Your task to perform on an android device: delete location history Image 0: 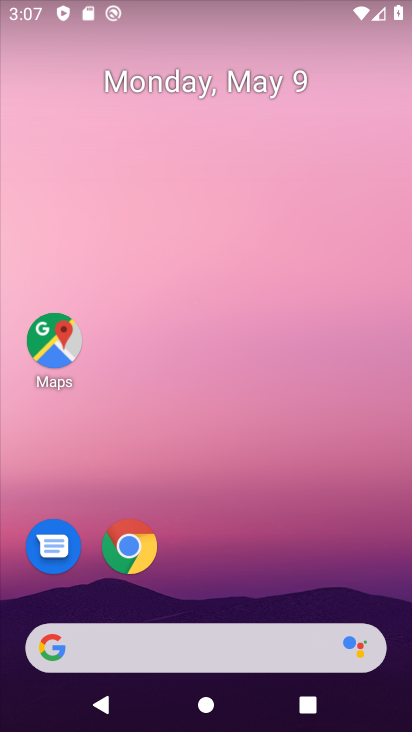
Step 0: drag from (313, 556) to (214, 126)
Your task to perform on an android device: delete location history Image 1: 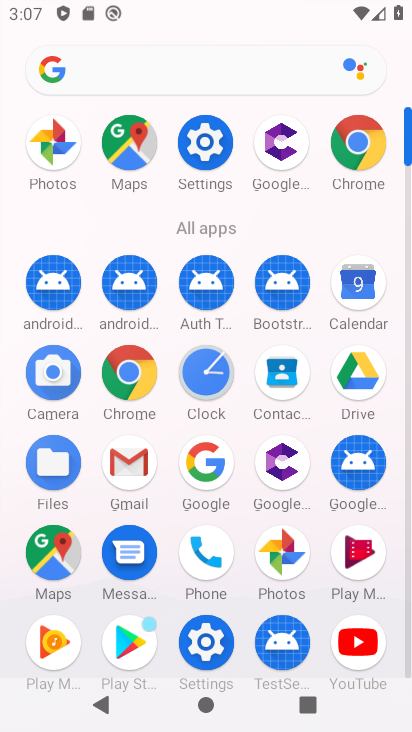
Step 1: click (127, 178)
Your task to perform on an android device: delete location history Image 2: 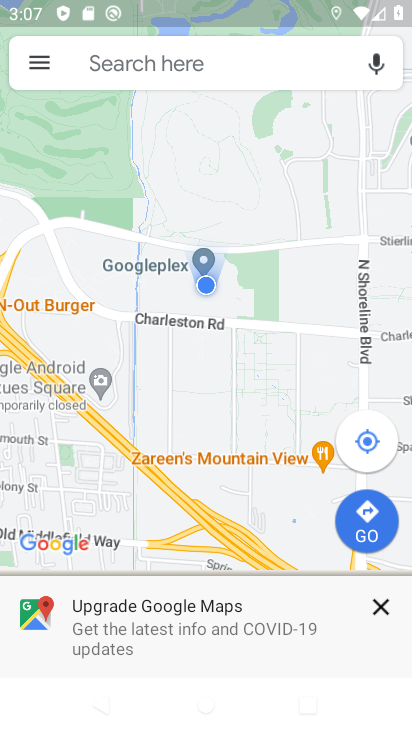
Step 2: click (23, 64)
Your task to perform on an android device: delete location history Image 3: 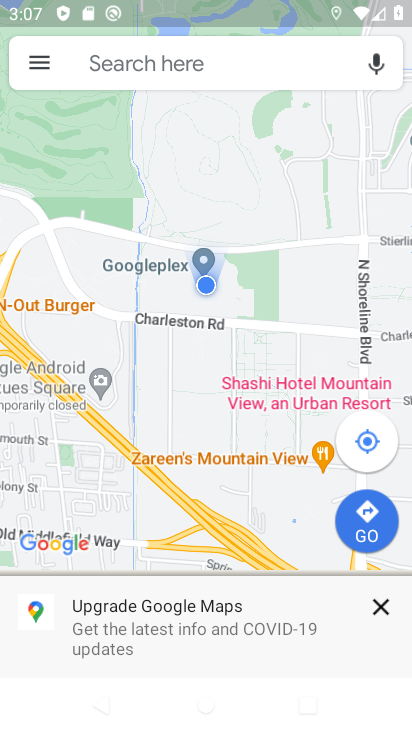
Step 3: click (43, 78)
Your task to perform on an android device: delete location history Image 4: 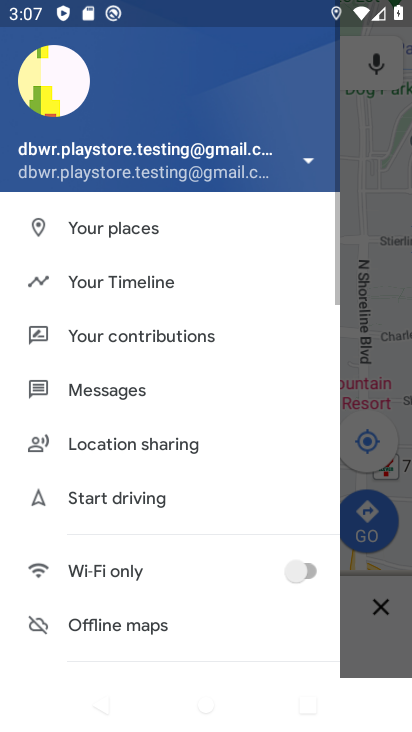
Step 4: click (151, 289)
Your task to perform on an android device: delete location history Image 5: 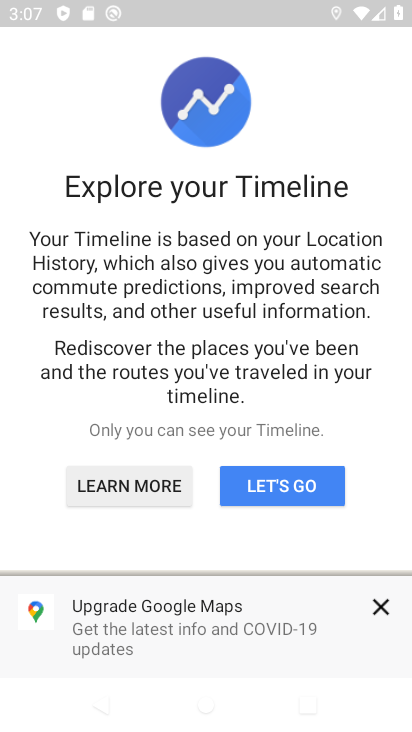
Step 5: click (294, 494)
Your task to perform on an android device: delete location history Image 6: 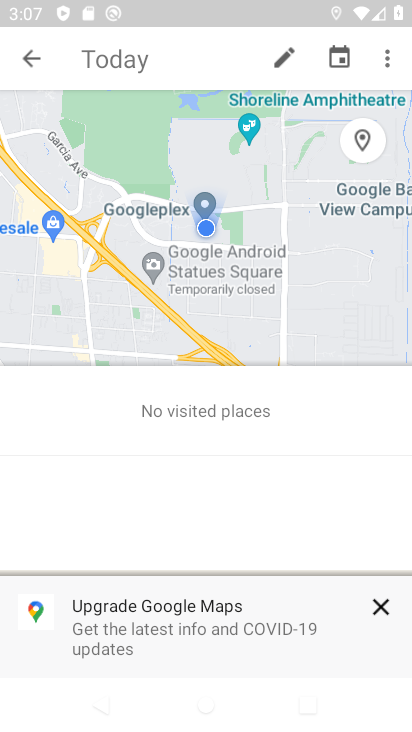
Step 6: click (379, 90)
Your task to perform on an android device: delete location history Image 7: 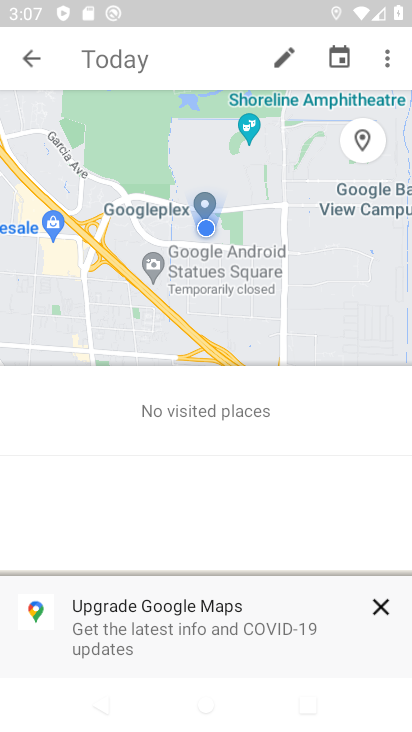
Step 7: click (385, 73)
Your task to perform on an android device: delete location history Image 8: 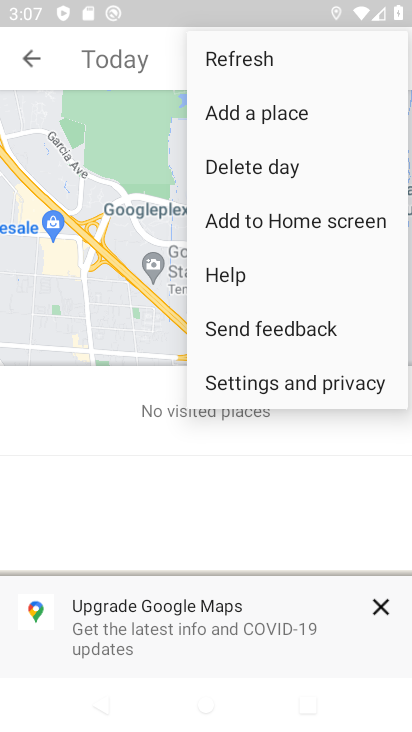
Step 8: click (312, 386)
Your task to perform on an android device: delete location history Image 9: 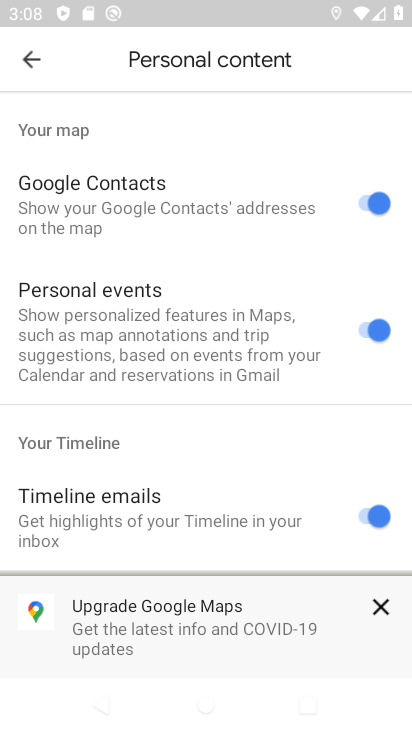
Step 9: drag from (225, 520) to (159, 220)
Your task to perform on an android device: delete location history Image 10: 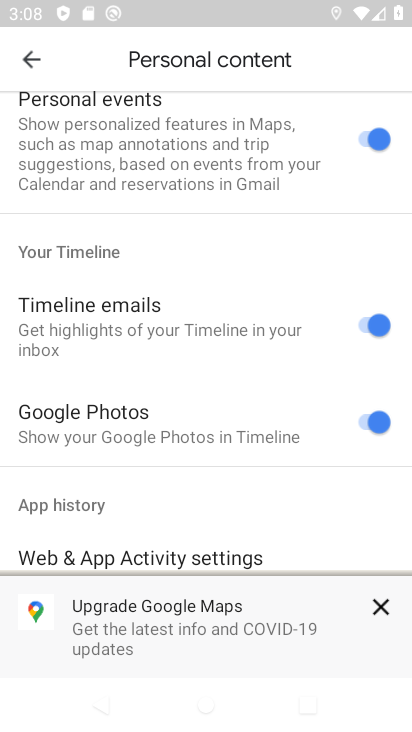
Step 10: drag from (202, 523) to (134, 303)
Your task to perform on an android device: delete location history Image 11: 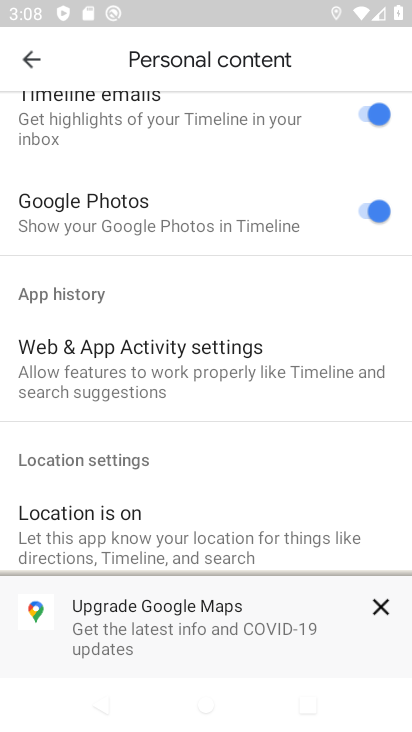
Step 11: drag from (198, 555) to (50, 214)
Your task to perform on an android device: delete location history Image 12: 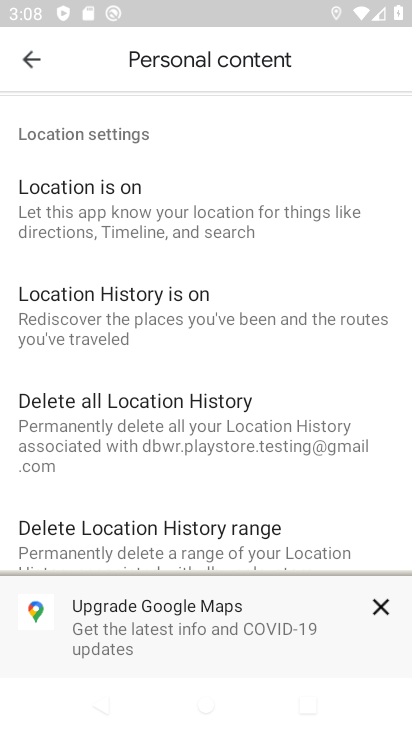
Step 12: click (133, 403)
Your task to perform on an android device: delete location history Image 13: 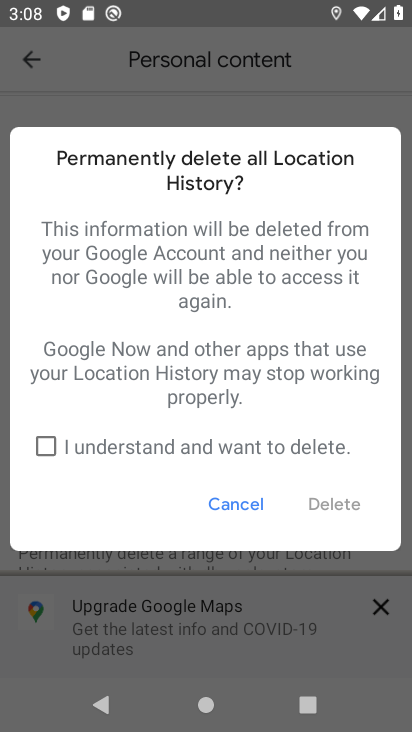
Step 13: click (33, 454)
Your task to perform on an android device: delete location history Image 14: 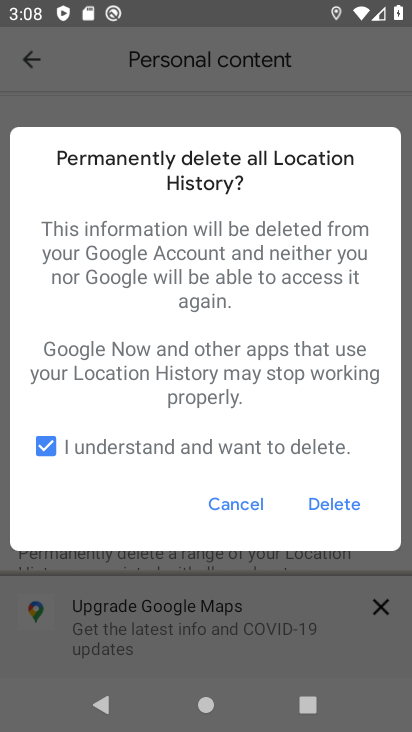
Step 14: click (353, 512)
Your task to perform on an android device: delete location history Image 15: 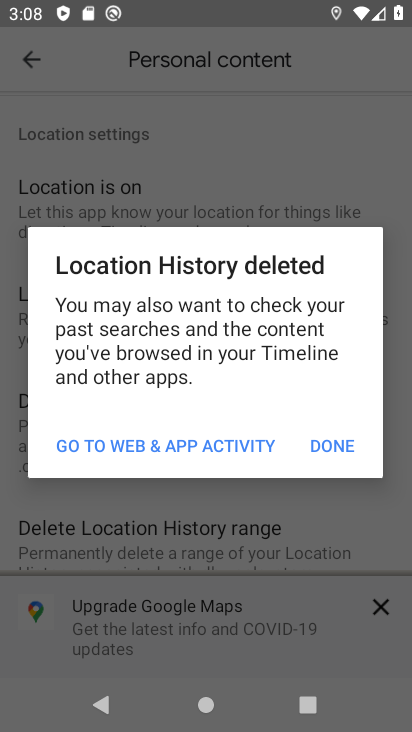
Step 15: click (314, 448)
Your task to perform on an android device: delete location history Image 16: 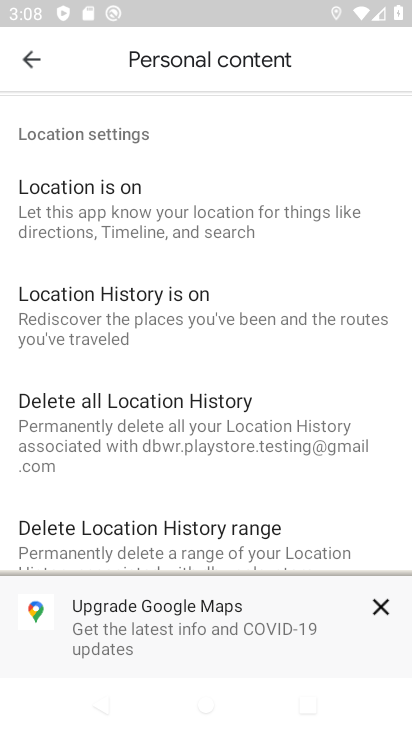
Step 16: task complete